Your task to perform on an android device: Is it going to rain today? Image 0: 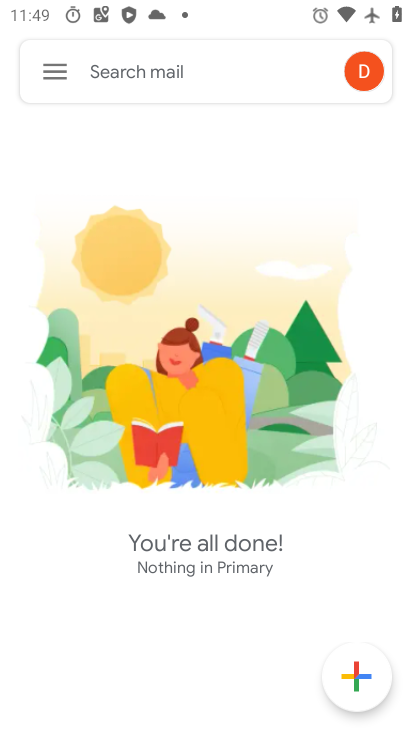
Step 0: press home button
Your task to perform on an android device: Is it going to rain today? Image 1: 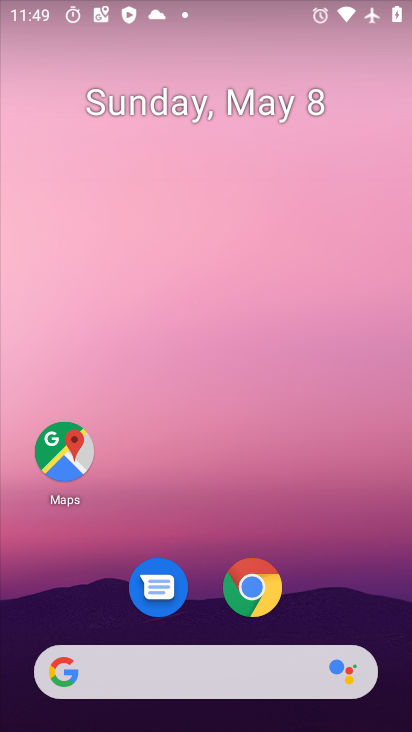
Step 1: drag from (23, 243) to (402, 307)
Your task to perform on an android device: Is it going to rain today? Image 2: 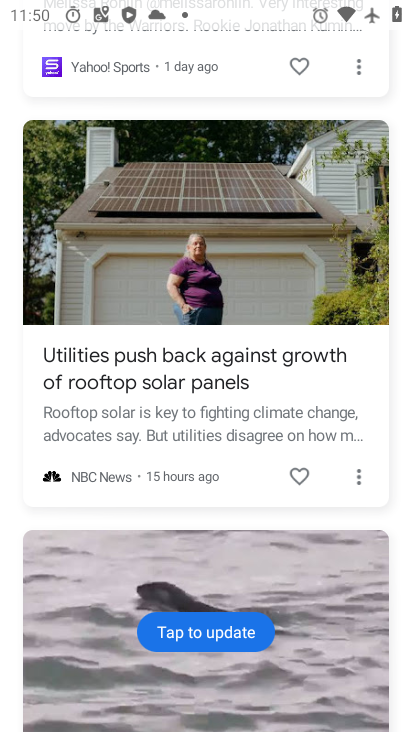
Step 2: drag from (106, 141) to (169, 513)
Your task to perform on an android device: Is it going to rain today? Image 3: 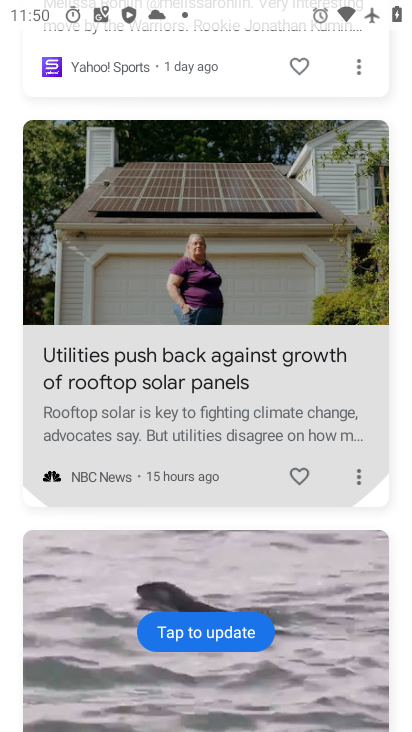
Step 3: drag from (166, 157) to (171, 573)
Your task to perform on an android device: Is it going to rain today? Image 4: 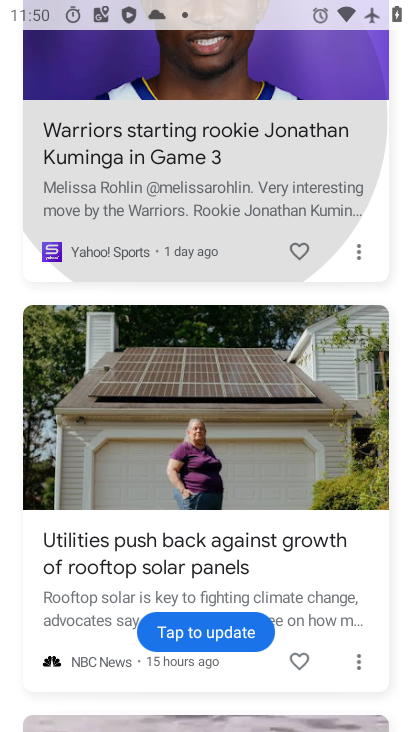
Step 4: drag from (129, 200) to (127, 685)
Your task to perform on an android device: Is it going to rain today? Image 5: 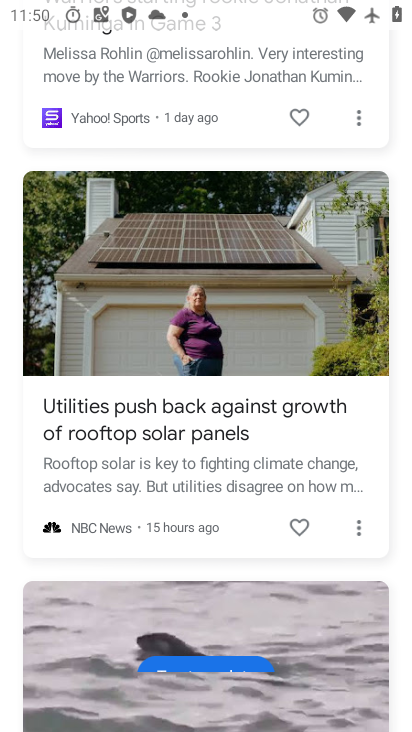
Step 5: drag from (246, 395) to (170, 657)
Your task to perform on an android device: Is it going to rain today? Image 6: 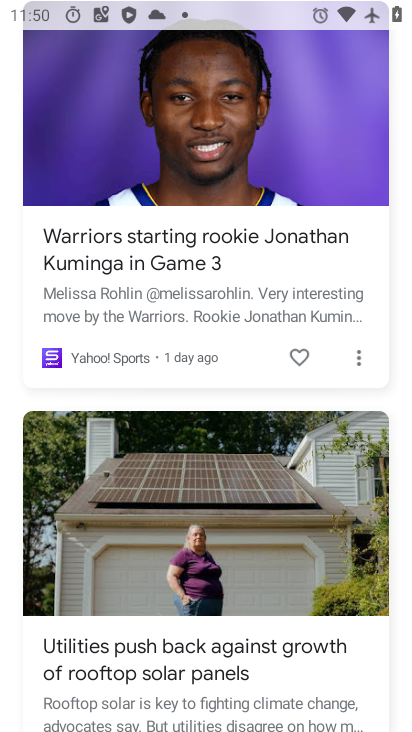
Step 6: drag from (153, 44) to (211, 467)
Your task to perform on an android device: Is it going to rain today? Image 7: 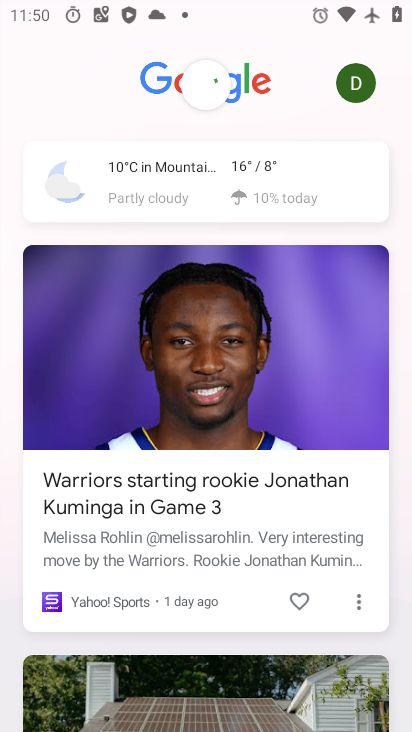
Step 7: click (214, 647)
Your task to perform on an android device: Is it going to rain today? Image 8: 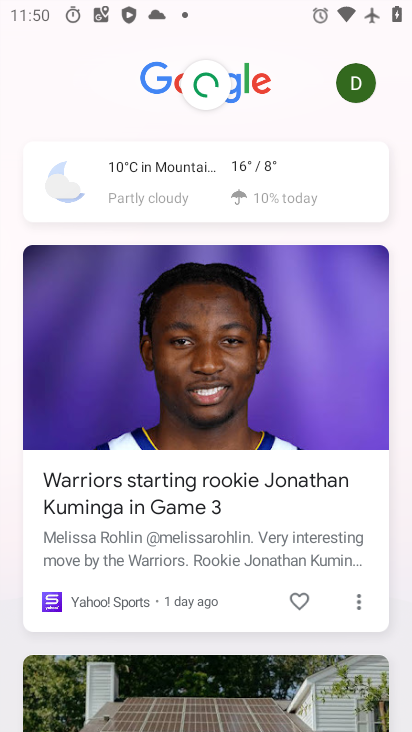
Step 8: click (194, 174)
Your task to perform on an android device: Is it going to rain today? Image 9: 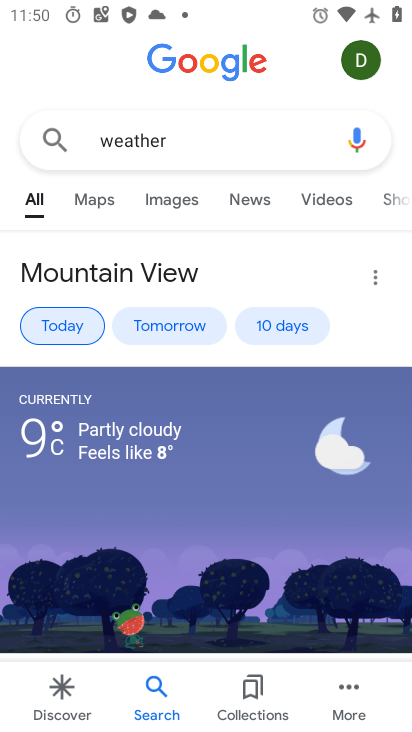
Step 9: task complete